Your task to perform on an android device: turn notification dots off Image 0: 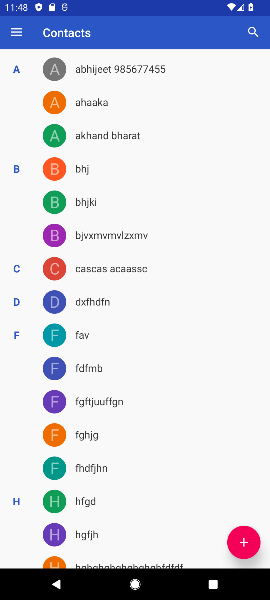
Step 0: press home button
Your task to perform on an android device: turn notification dots off Image 1: 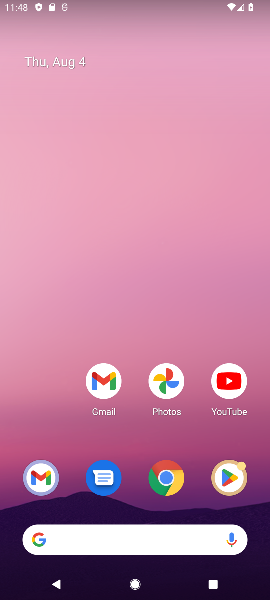
Step 1: drag from (131, 495) to (130, 37)
Your task to perform on an android device: turn notification dots off Image 2: 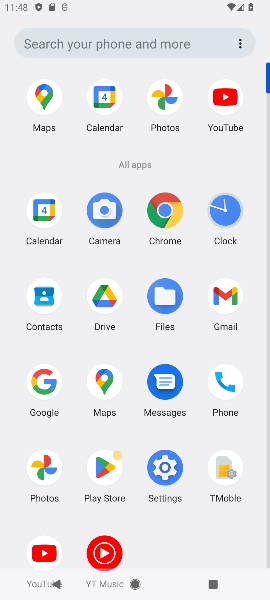
Step 2: click (162, 461)
Your task to perform on an android device: turn notification dots off Image 3: 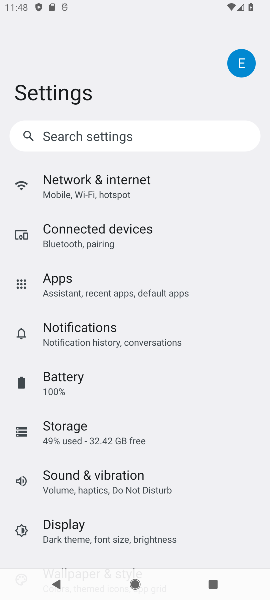
Step 3: drag from (129, 493) to (113, 172)
Your task to perform on an android device: turn notification dots off Image 4: 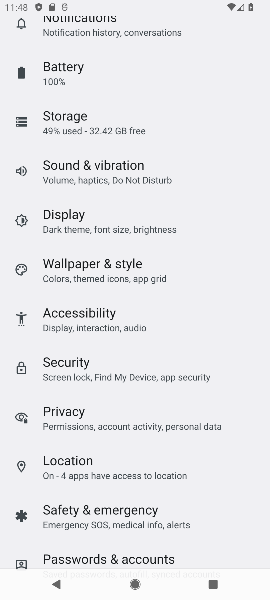
Step 4: drag from (130, 140) to (90, 430)
Your task to perform on an android device: turn notification dots off Image 5: 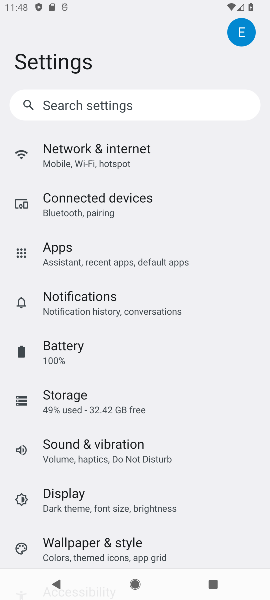
Step 5: click (93, 307)
Your task to perform on an android device: turn notification dots off Image 6: 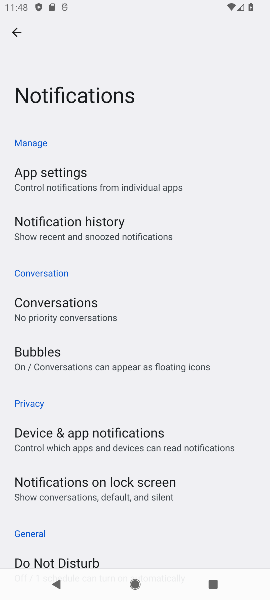
Step 6: drag from (144, 438) to (124, 145)
Your task to perform on an android device: turn notification dots off Image 7: 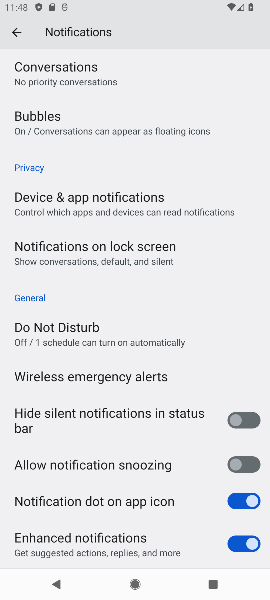
Step 7: drag from (163, 383) to (146, 131)
Your task to perform on an android device: turn notification dots off Image 8: 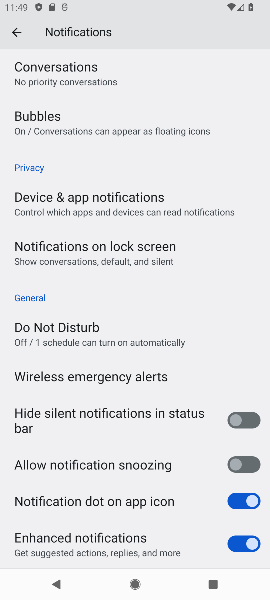
Step 8: click (245, 497)
Your task to perform on an android device: turn notification dots off Image 9: 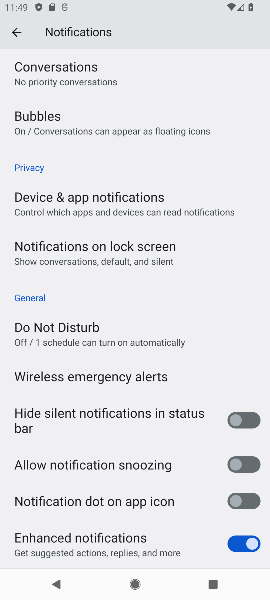
Step 9: task complete